Your task to perform on an android device: delete location history Image 0: 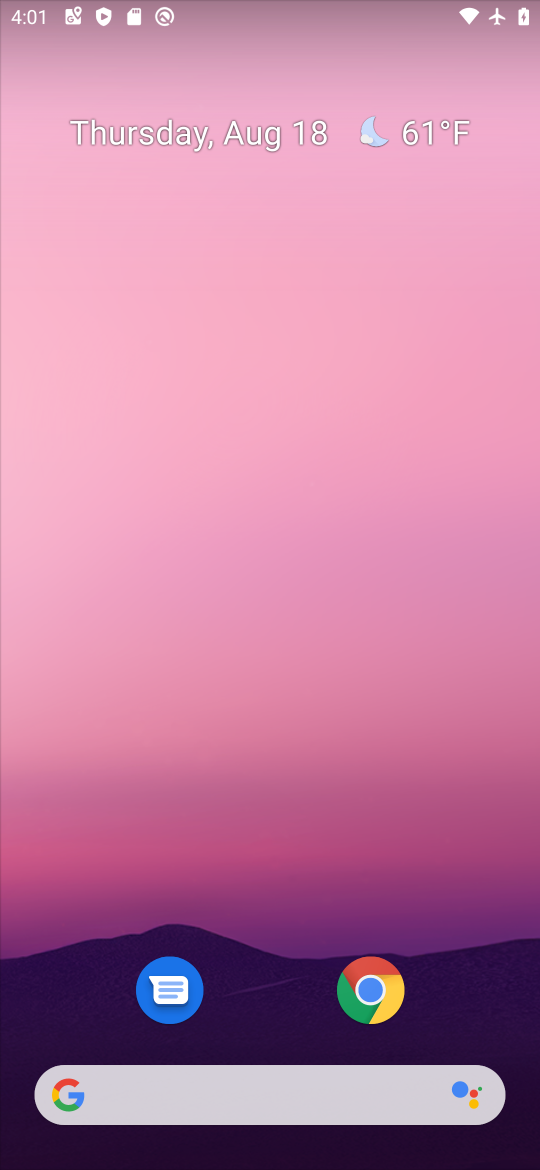
Step 0: drag from (267, 853) to (416, 47)
Your task to perform on an android device: delete location history Image 1: 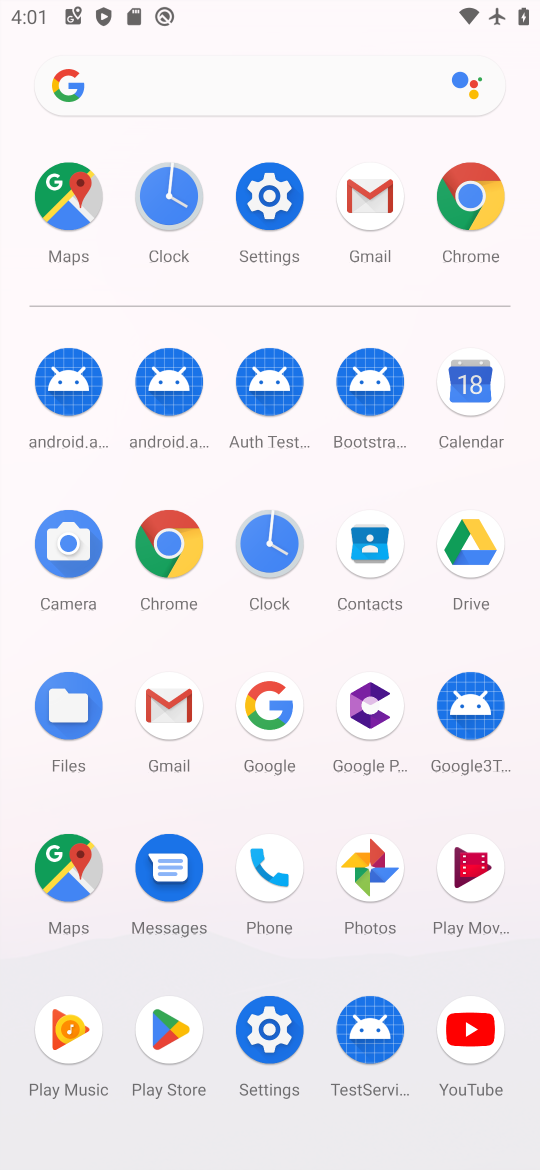
Step 1: click (63, 869)
Your task to perform on an android device: delete location history Image 2: 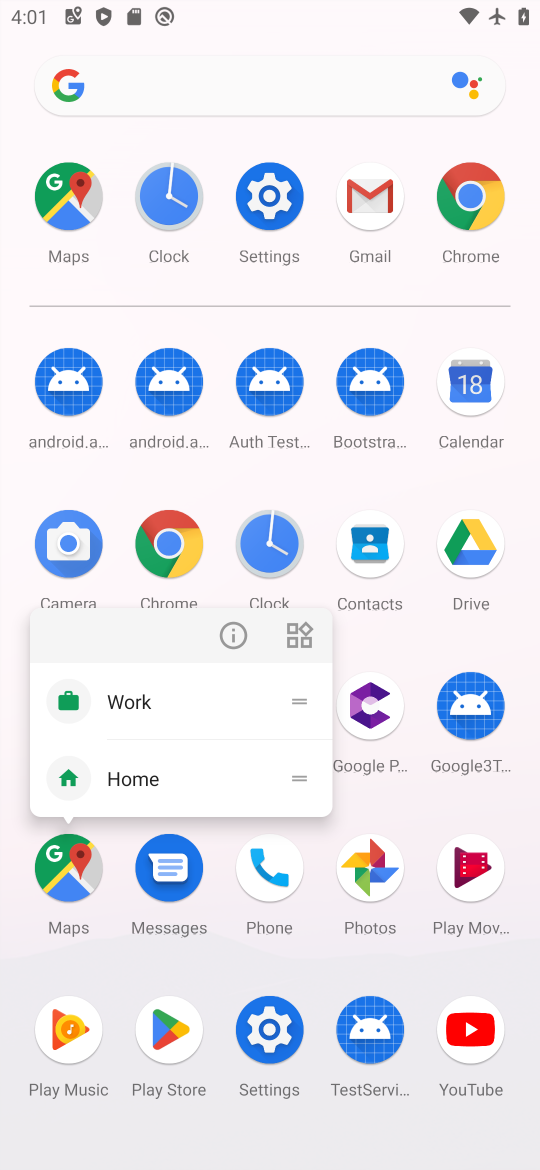
Step 2: click (63, 869)
Your task to perform on an android device: delete location history Image 3: 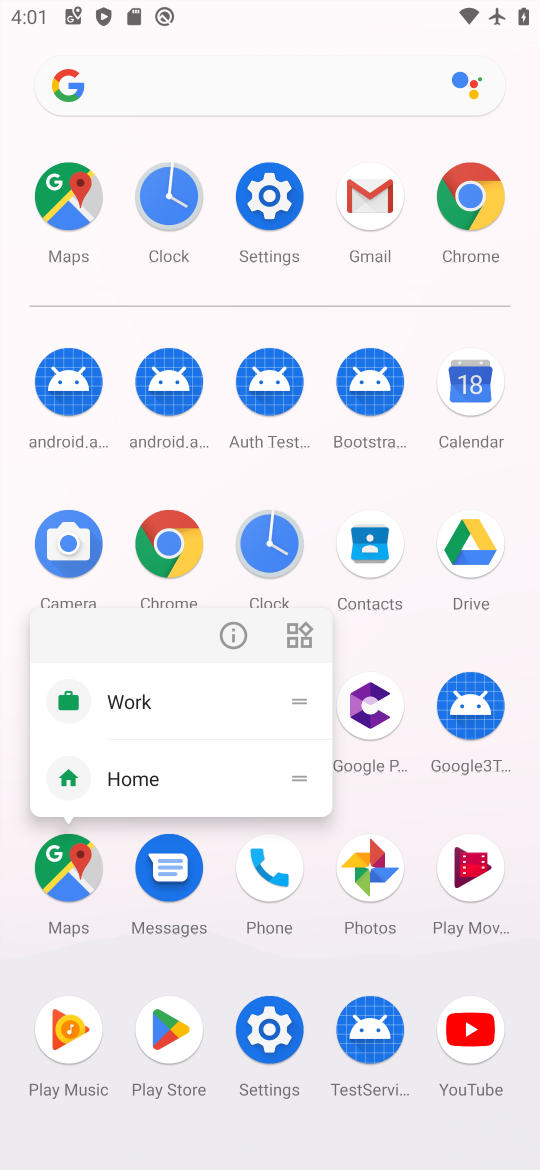
Step 3: click (69, 879)
Your task to perform on an android device: delete location history Image 4: 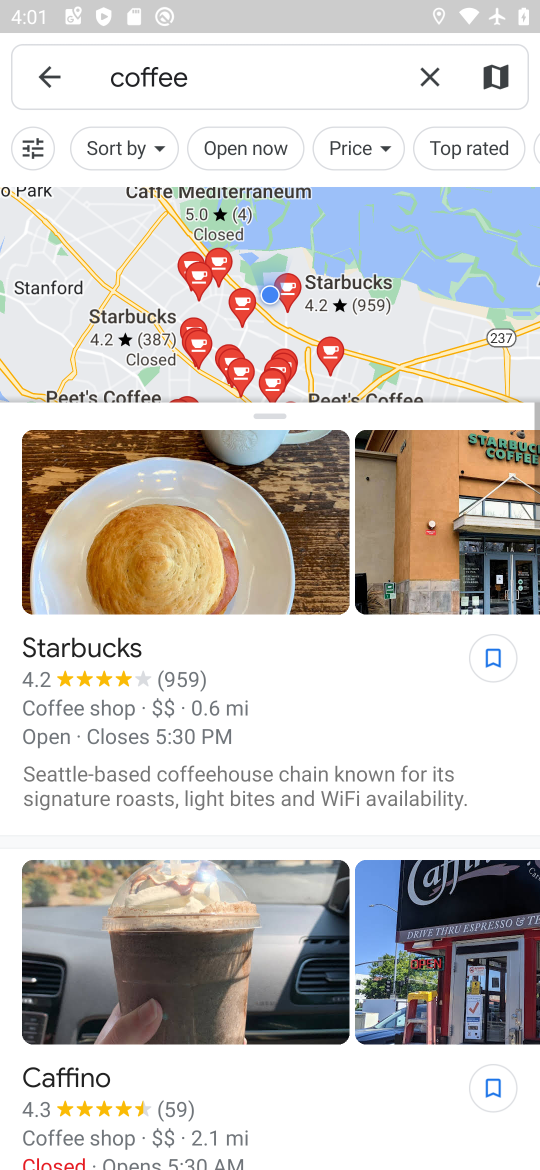
Step 4: press back button
Your task to perform on an android device: delete location history Image 5: 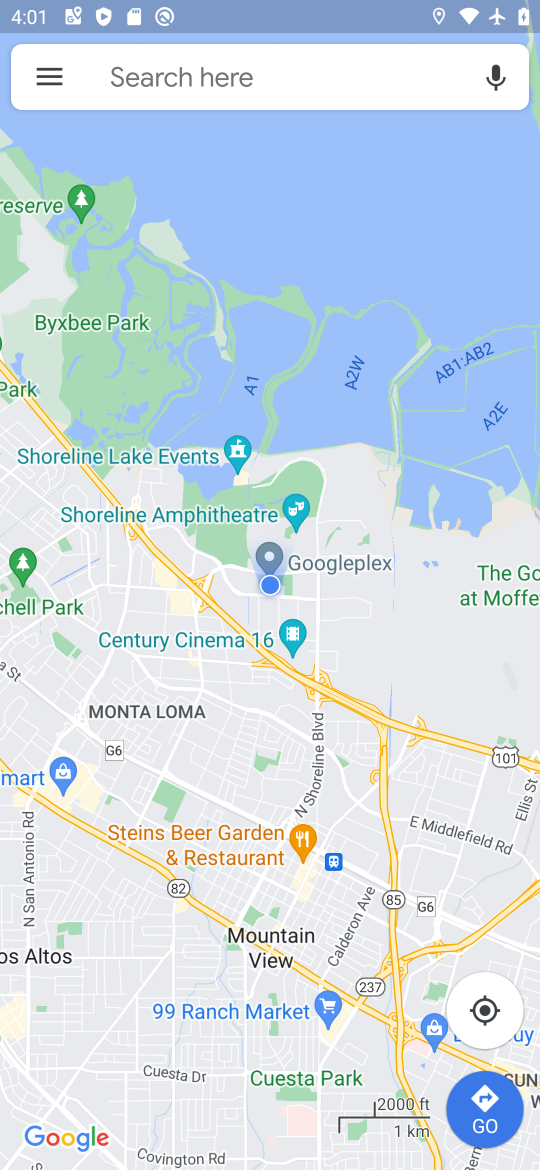
Step 5: click (47, 76)
Your task to perform on an android device: delete location history Image 6: 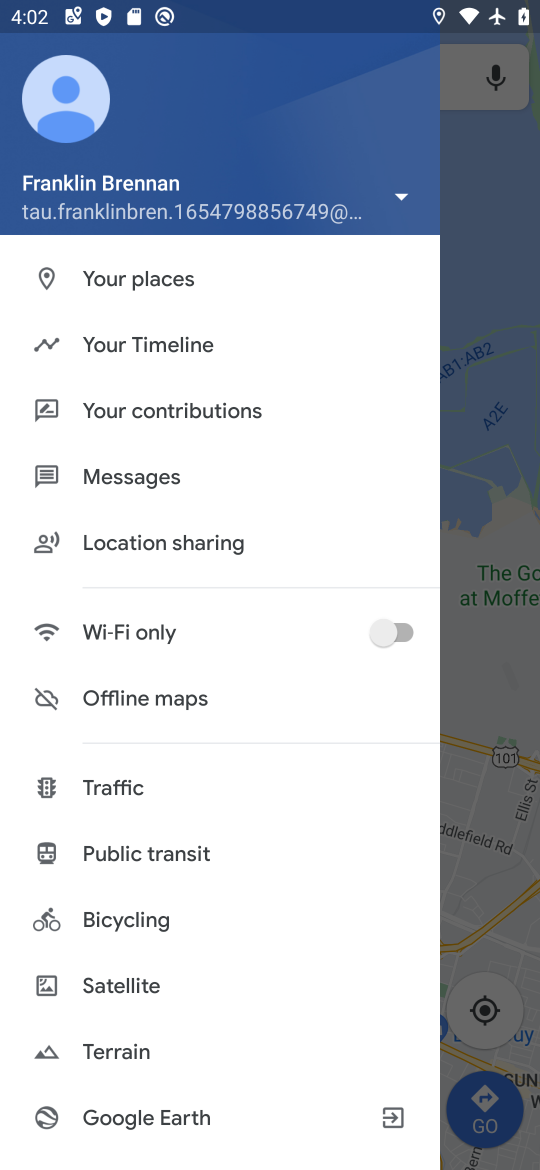
Step 6: drag from (211, 1007) to (322, 193)
Your task to perform on an android device: delete location history Image 7: 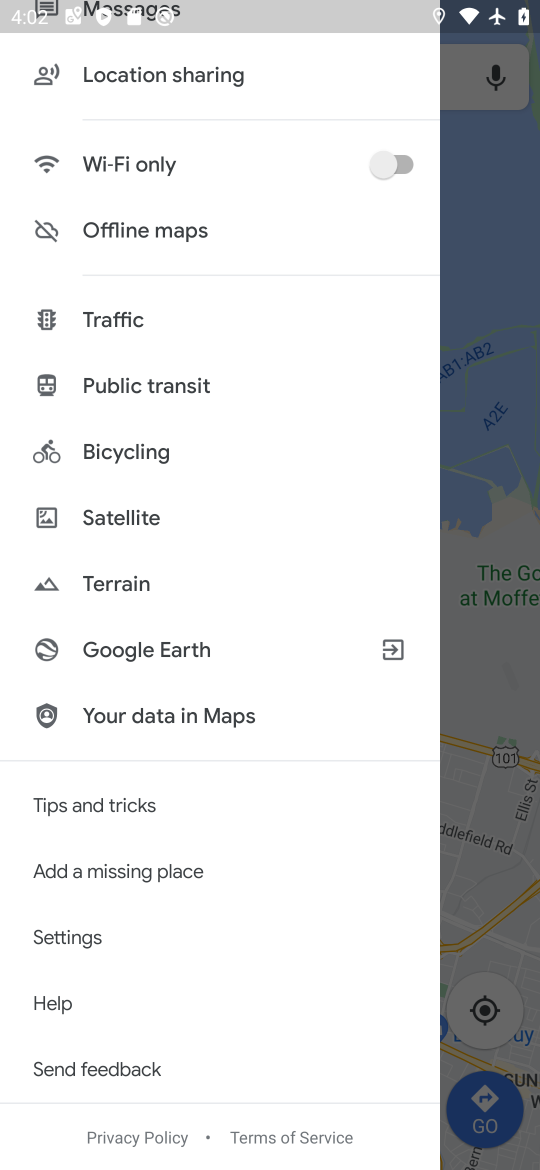
Step 7: click (73, 937)
Your task to perform on an android device: delete location history Image 8: 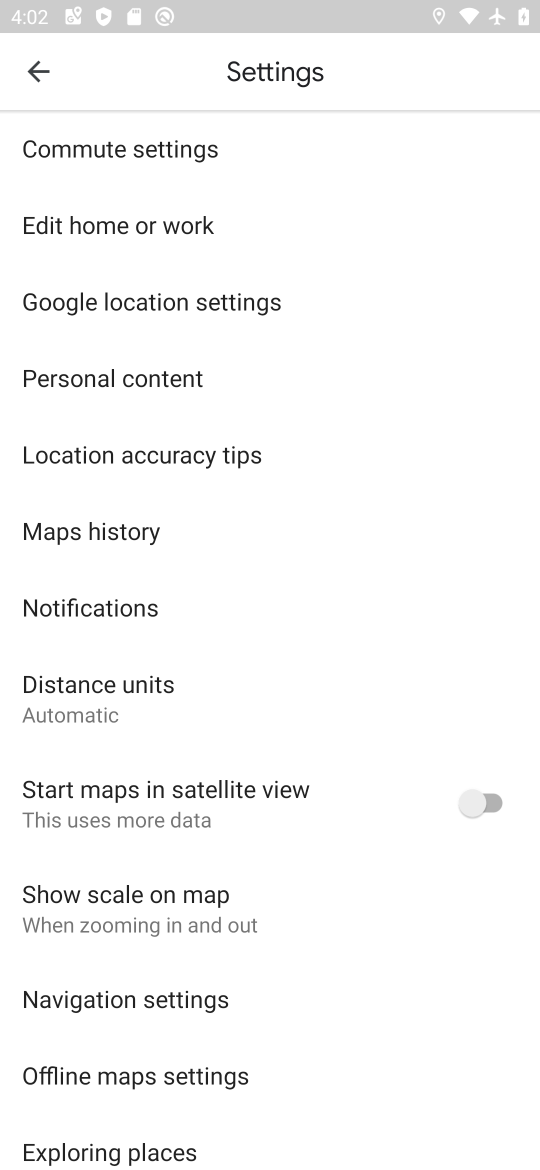
Step 8: click (126, 538)
Your task to perform on an android device: delete location history Image 9: 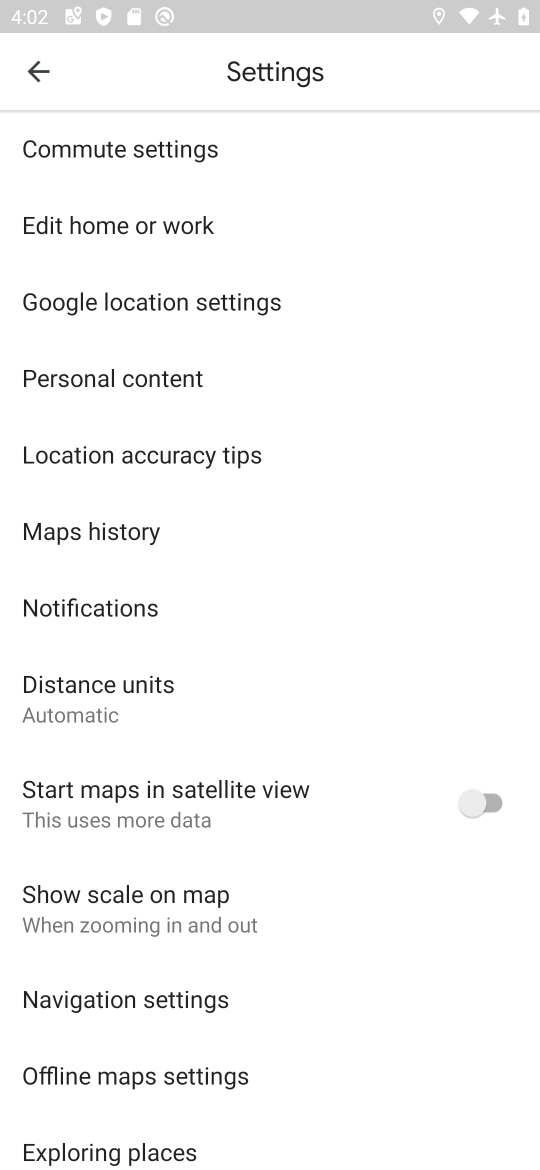
Step 9: click (161, 537)
Your task to perform on an android device: delete location history Image 10: 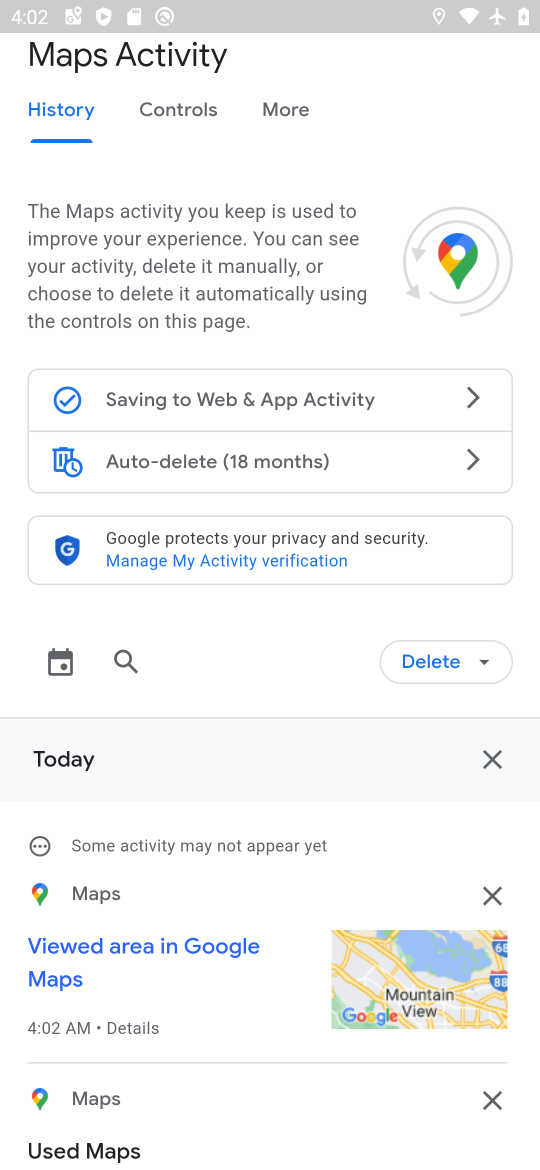
Step 10: click (481, 650)
Your task to perform on an android device: delete location history Image 11: 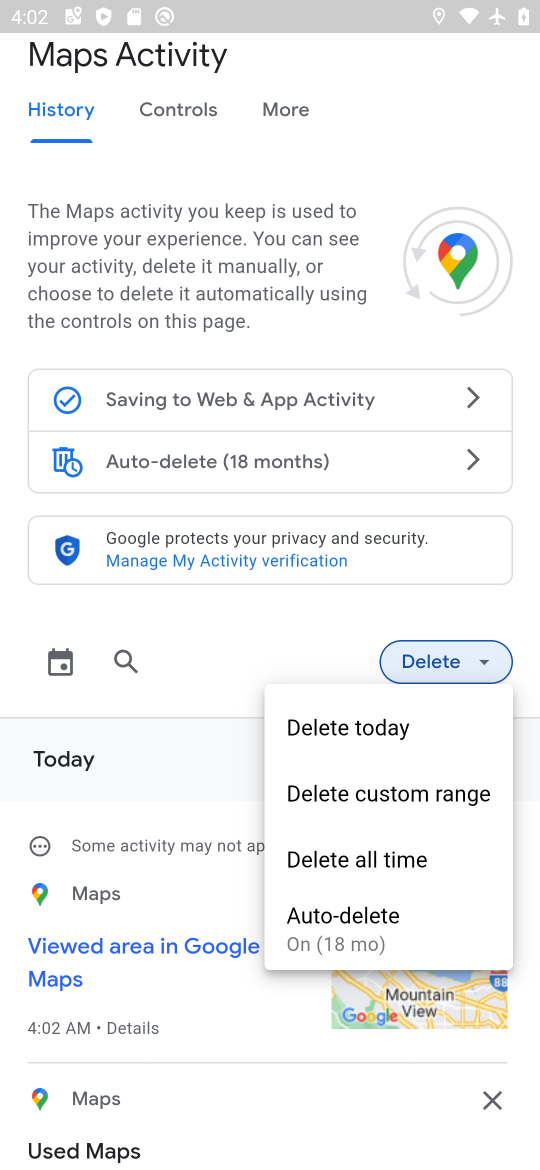
Step 11: click (345, 860)
Your task to perform on an android device: delete location history Image 12: 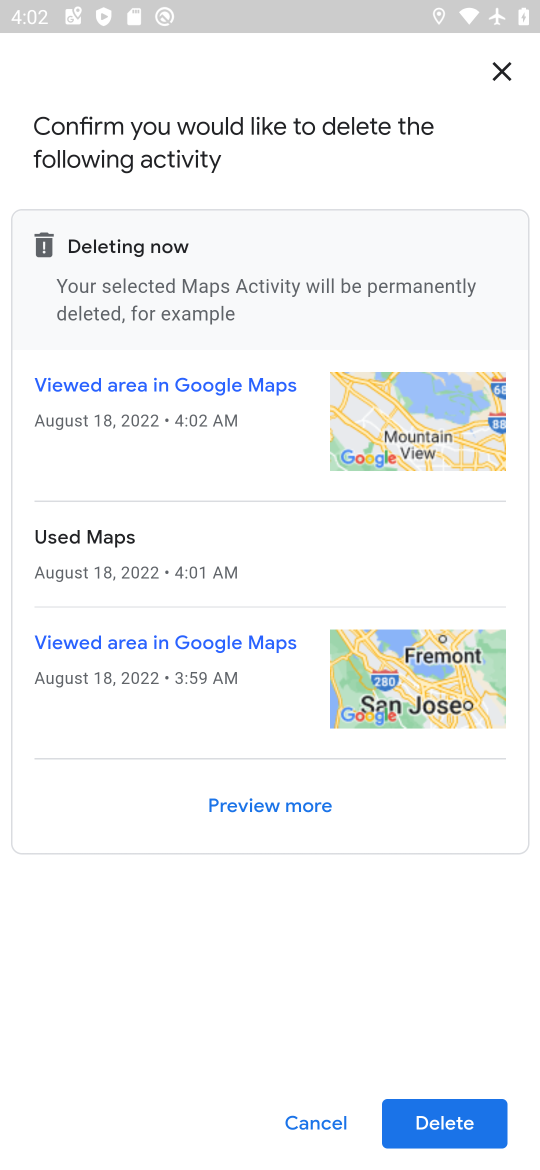
Step 12: click (427, 1110)
Your task to perform on an android device: delete location history Image 13: 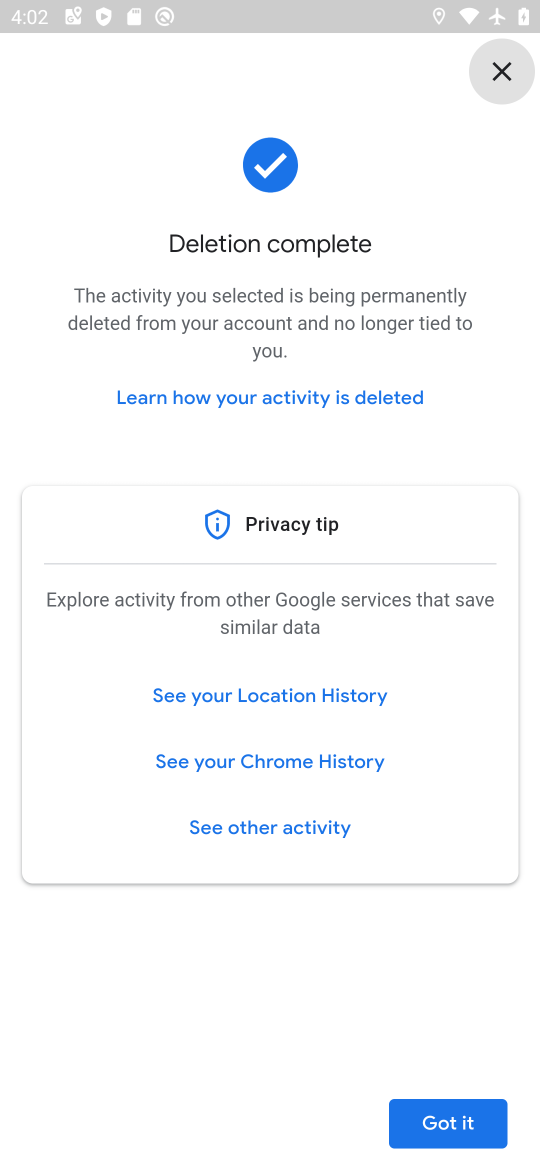
Step 13: click (454, 1106)
Your task to perform on an android device: delete location history Image 14: 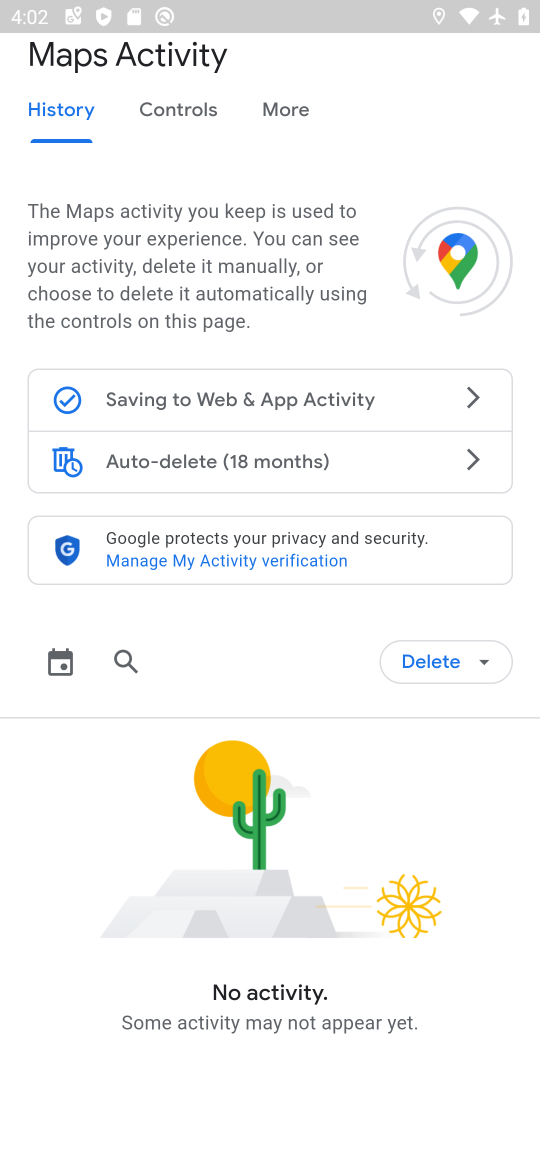
Step 14: task complete